Your task to perform on an android device: What's the weather? Image 0: 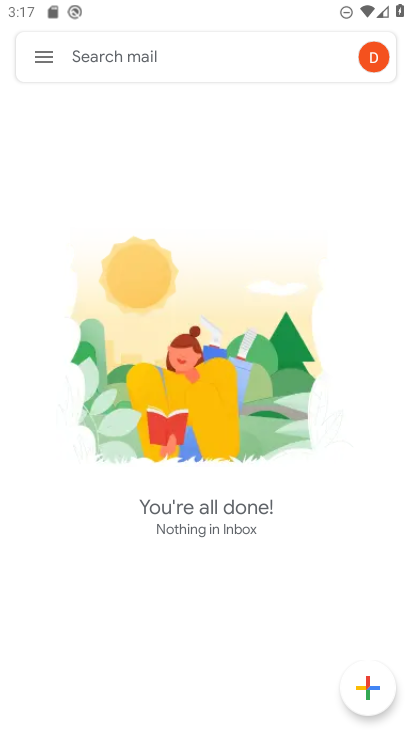
Step 0: press home button
Your task to perform on an android device: What's the weather? Image 1: 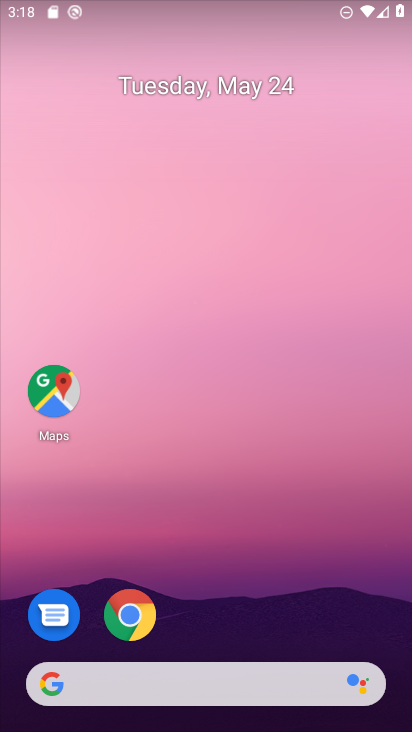
Step 1: drag from (278, 640) to (239, 336)
Your task to perform on an android device: What's the weather? Image 2: 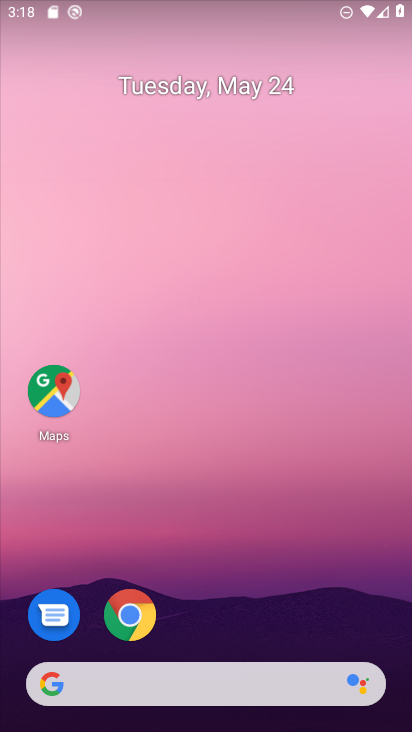
Step 2: drag from (242, 623) to (330, 117)
Your task to perform on an android device: What's the weather? Image 3: 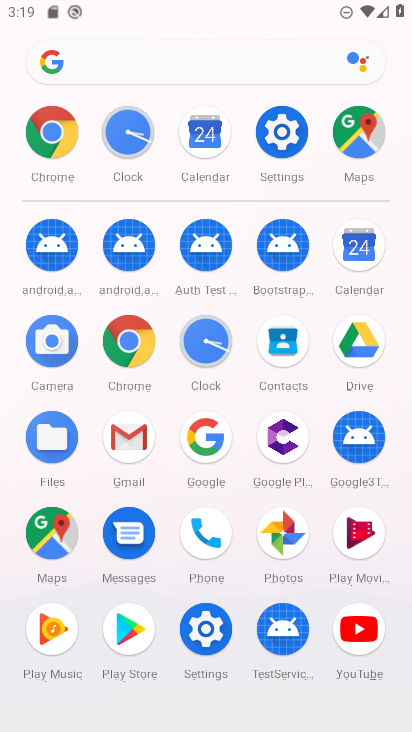
Step 3: click (210, 456)
Your task to perform on an android device: What's the weather? Image 4: 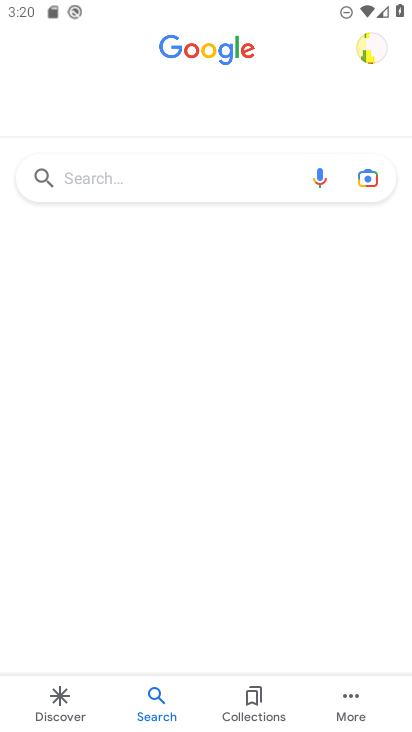
Step 4: click (259, 176)
Your task to perform on an android device: What's the weather? Image 5: 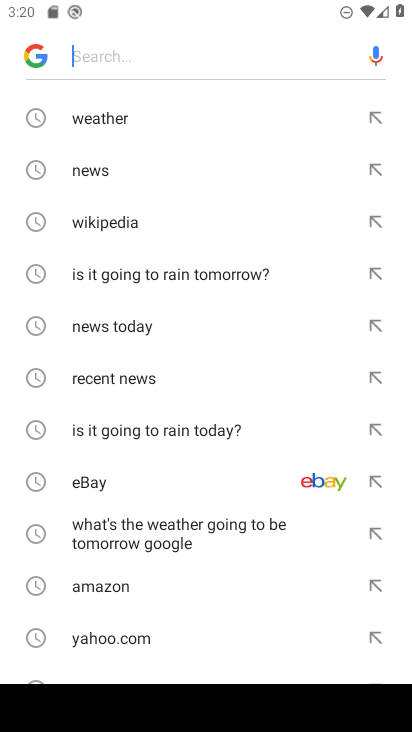
Step 5: click (251, 109)
Your task to perform on an android device: What's the weather? Image 6: 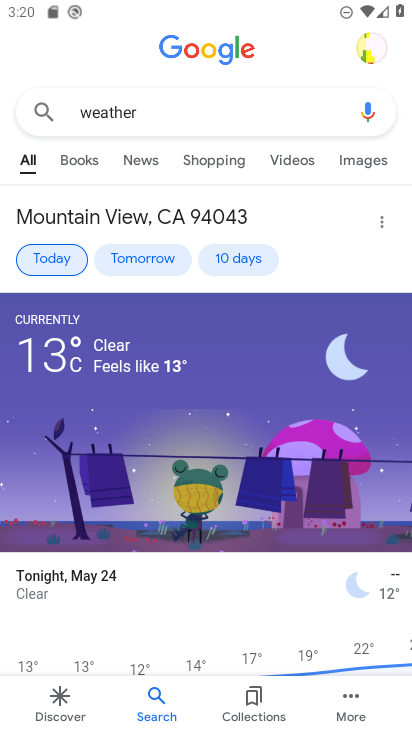
Step 6: task complete